Your task to perform on an android device: turn off location Image 0: 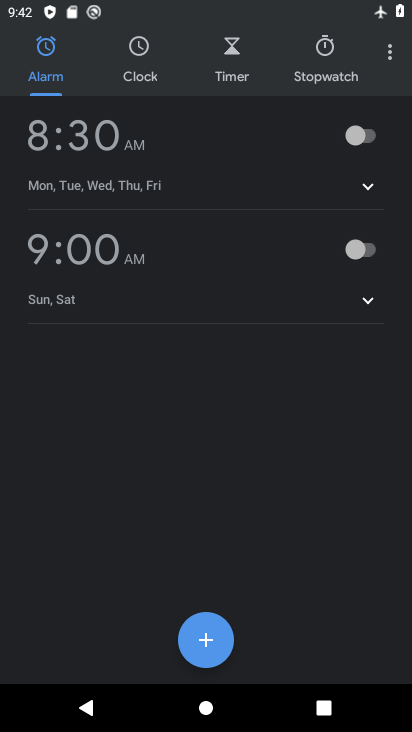
Step 0: press home button
Your task to perform on an android device: turn off location Image 1: 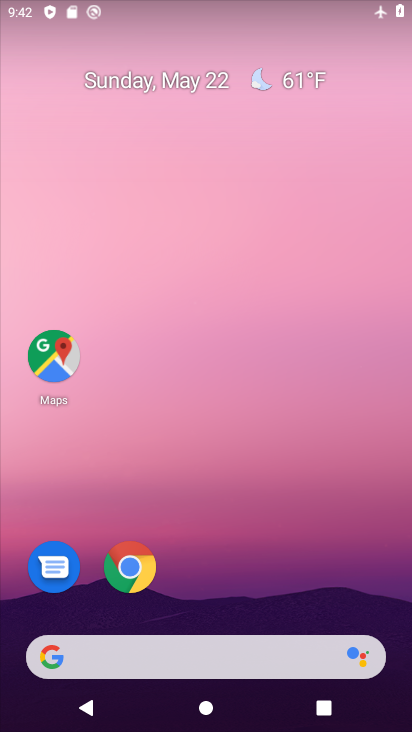
Step 1: drag from (217, 629) to (171, 0)
Your task to perform on an android device: turn off location Image 2: 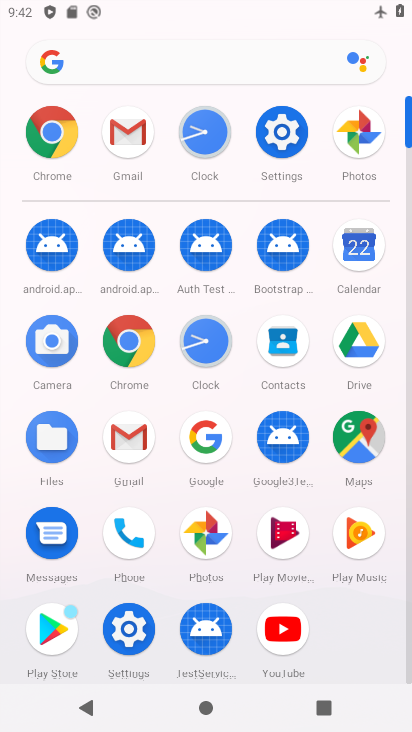
Step 2: click (285, 144)
Your task to perform on an android device: turn off location Image 3: 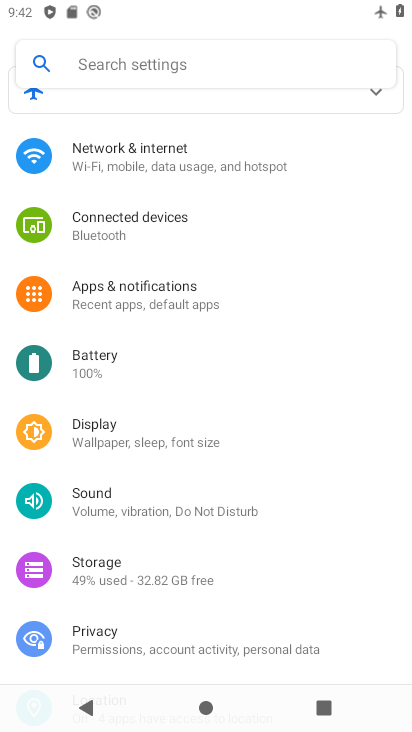
Step 3: drag from (212, 556) to (132, 61)
Your task to perform on an android device: turn off location Image 4: 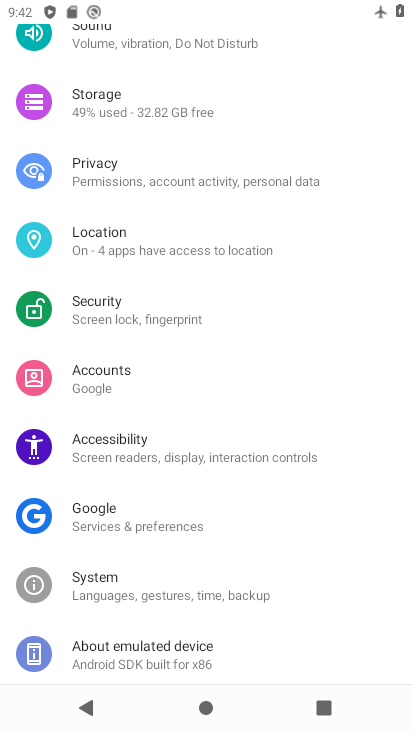
Step 4: click (86, 250)
Your task to perform on an android device: turn off location Image 5: 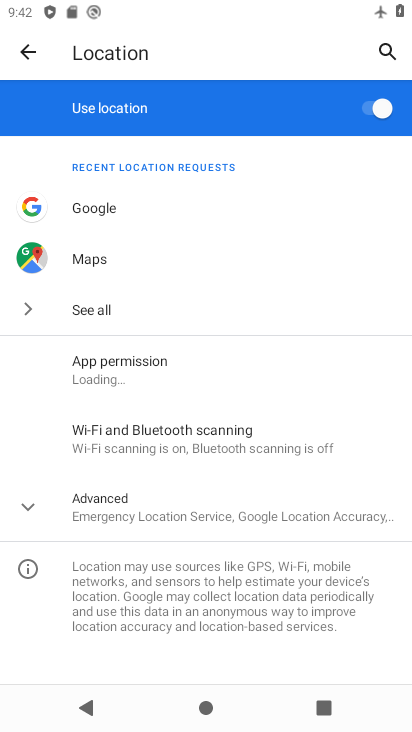
Step 5: click (364, 111)
Your task to perform on an android device: turn off location Image 6: 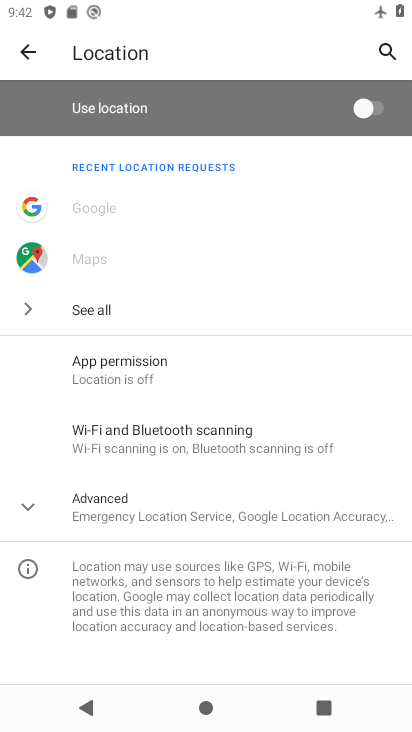
Step 6: task complete